Your task to perform on an android device: Clear all items from cart on newegg.com. Add "sony triple a" to the cart on newegg.com Image 0: 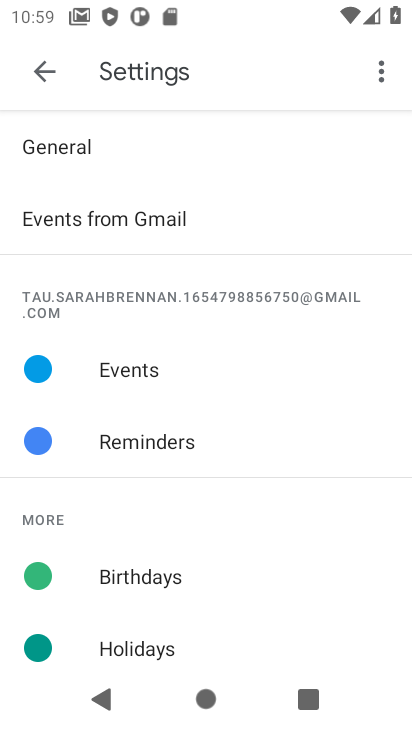
Step 0: press home button
Your task to perform on an android device: Clear all items from cart on newegg.com. Add "sony triple a" to the cart on newegg.com Image 1: 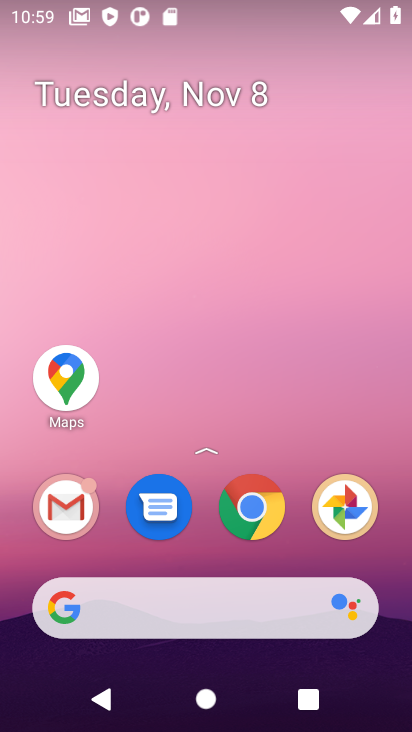
Step 1: click (259, 511)
Your task to perform on an android device: Clear all items from cart on newegg.com. Add "sony triple a" to the cart on newegg.com Image 2: 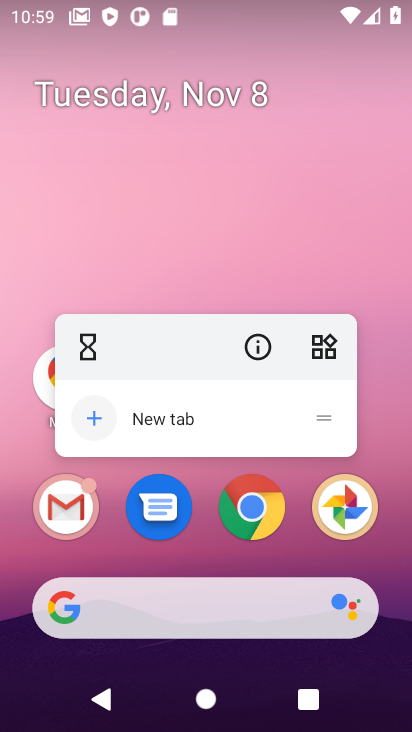
Step 2: click (259, 510)
Your task to perform on an android device: Clear all items from cart on newegg.com. Add "sony triple a" to the cart on newegg.com Image 3: 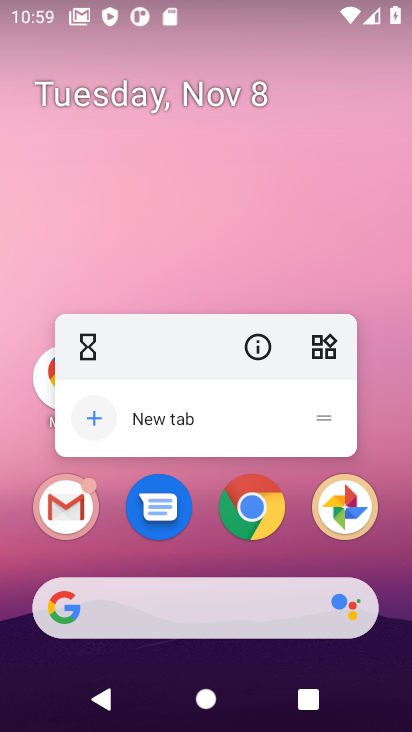
Step 3: click (259, 513)
Your task to perform on an android device: Clear all items from cart on newegg.com. Add "sony triple a" to the cart on newegg.com Image 4: 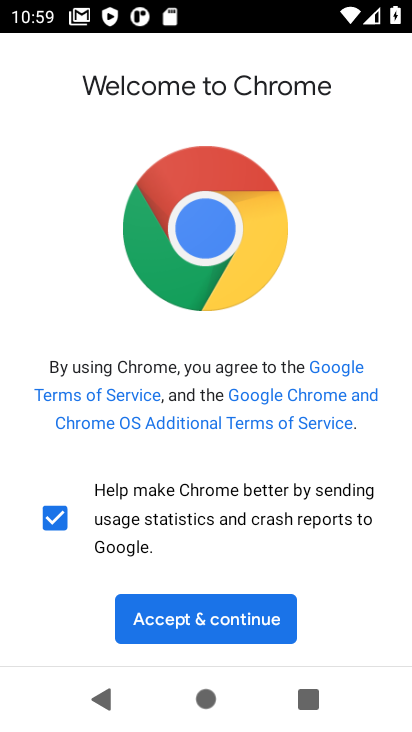
Step 4: click (186, 625)
Your task to perform on an android device: Clear all items from cart on newegg.com. Add "sony triple a" to the cart on newegg.com Image 5: 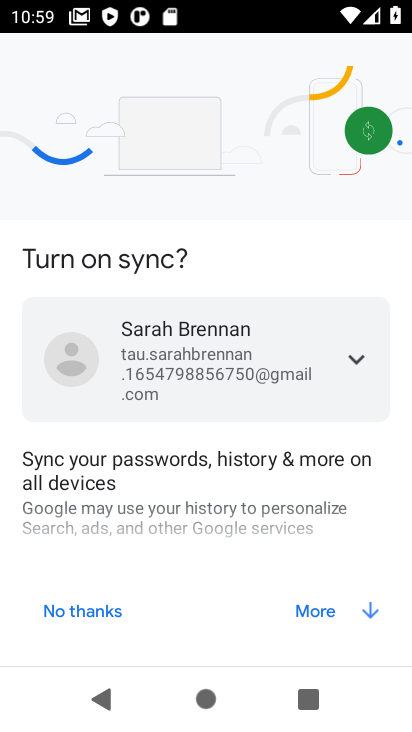
Step 5: click (323, 608)
Your task to perform on an android device: Clear all items from cart on newegg.com. Add "sony triple a" to the cart on newegg.com Image 6: 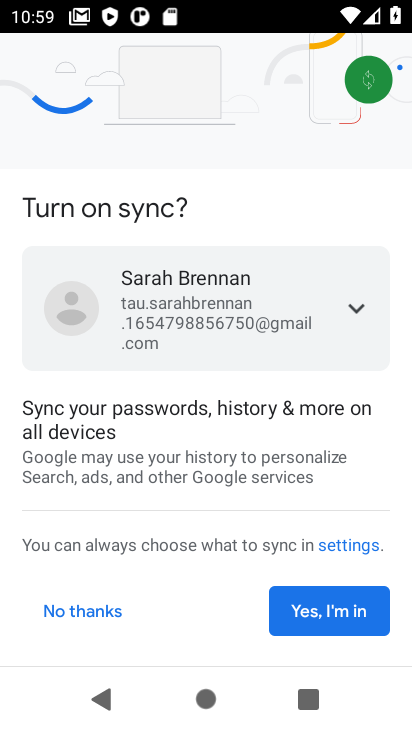
Step 6: click (323, 608)
Your task to perform on an android device: Clear all items from cart on newegg.com. Add "sony triple a" to the cart on newegg.com Image 7: 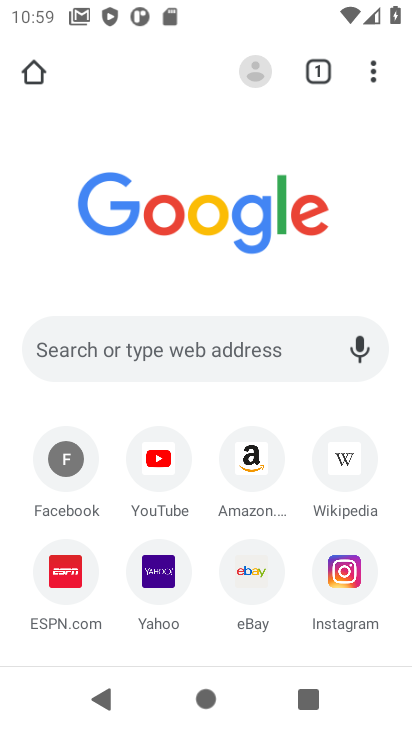
Step 7: click (149, 348)
Your task to perform on an android device: Clear all items from cart on newegg.com. Add "sony triple a" to the cart on newegg.com Image 8: 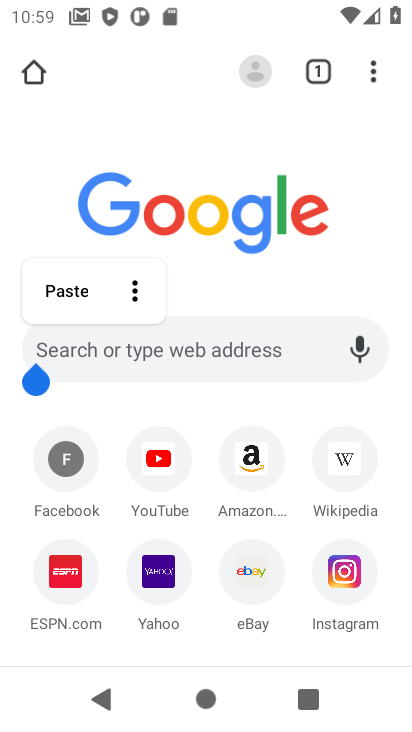
Step 8: click (149, 348)
Your task to perform on an android device: Clear all items from cart on newegg.com. Add "sony triple a" to the cart on newegg.com Image 9: 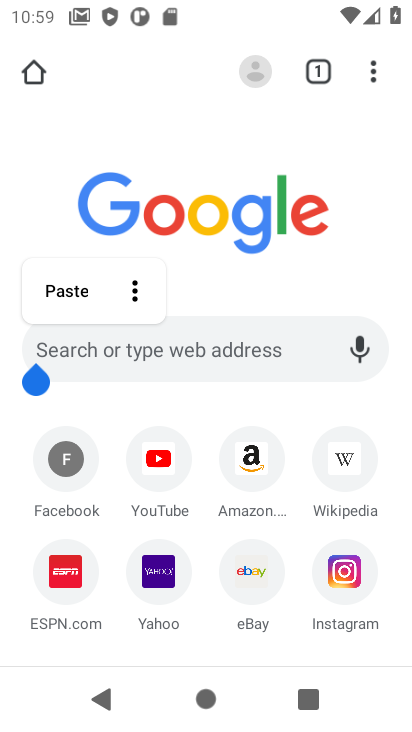
Step 9: click (149, 348)
Your task to perform on an android device: Clear all items from cart on newegg.com. Add "sony triple a" to the cart on newegg.com Image 10: 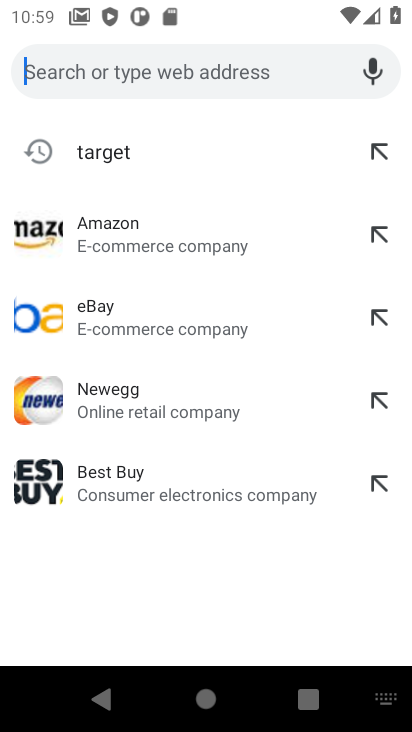
Step 10: click (111, 412)
Your task to perform on an android device: Clear all items from cart on newegg.com. Add "sony triple a" to the cart on newegg.com Image 11: 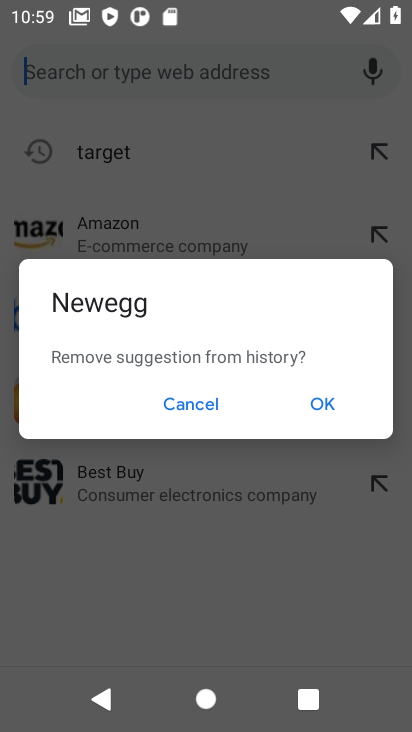
Step 11: click (190, 400)
Your task to perform on an android device: Clear all items from cart on newegg.com. Add "sony triple a" to the cart on newegg.com Image 12: 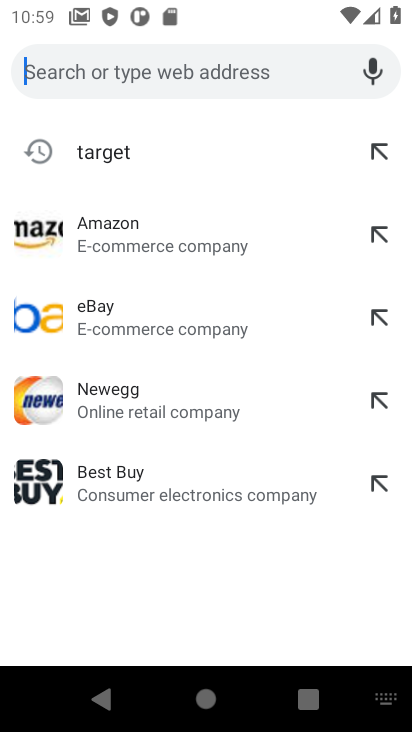
Step 12: click (97, 391)
Your task to perform on an android device: Clear all items from cart on newegg.com. Add "sony triple a" to the cart on newegg.com Image 13: 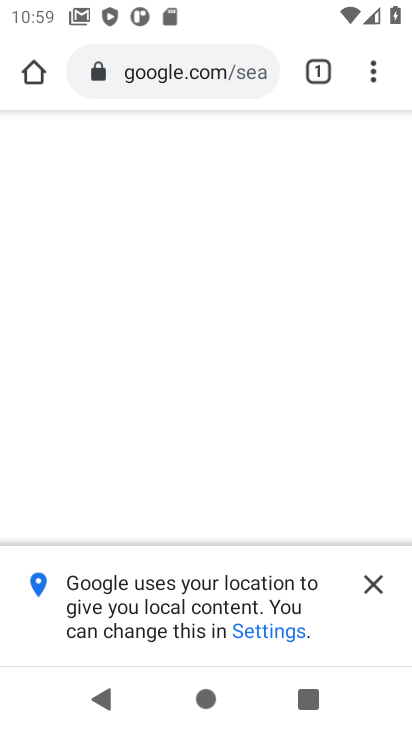
Step 13: click (377, 583)
Your task to perform on an android device: Clear all items from cart on newegg.com. Add "sony triple a" to the cart on newegg.com Image 14: 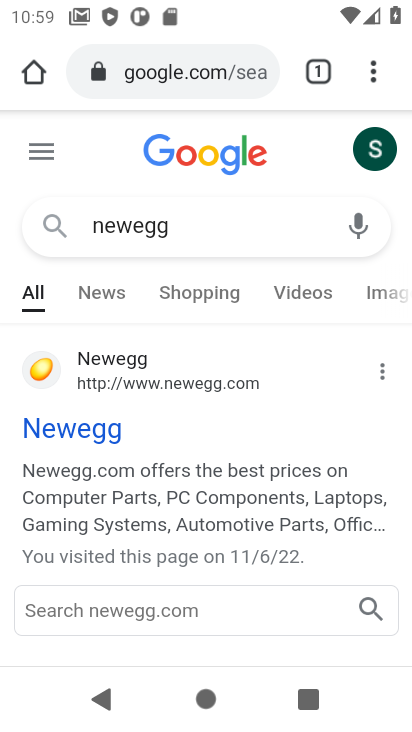
Step 14: click (89, 422)
Your task to perform on an android device: Clear all items from cart on newegg.com. Add "sony triple a" to the cart on newegg.com Image 15: 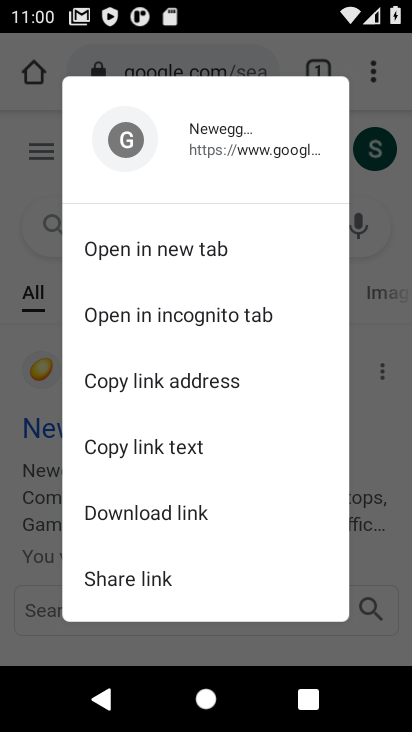
Step 15: click (41, 431)
Your task to perform on an android device: Clear all items from cart on newegg.com. Add "sony triple a" to the cart on newegg.com Image 16: 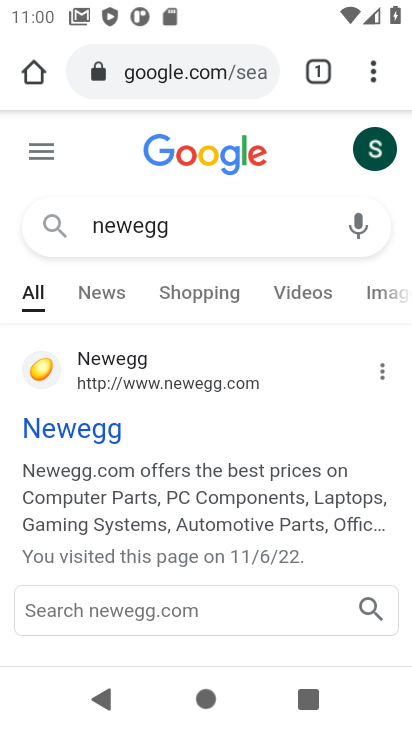
Step 16: click (67, 426)
Your task to perform on an android device: Clear all items from cart on newegg.com. Add "sony triple a" to the cart on newegg.com Image 17: 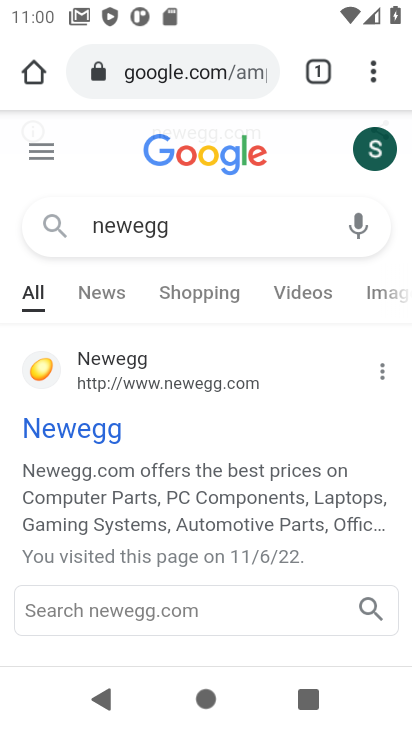
Step 17: click (104, 427)
Your task to perform on an android device: Clear all items from cart on newegg.com. Add "sony triple a" to the cart on newegg.com Image 18: 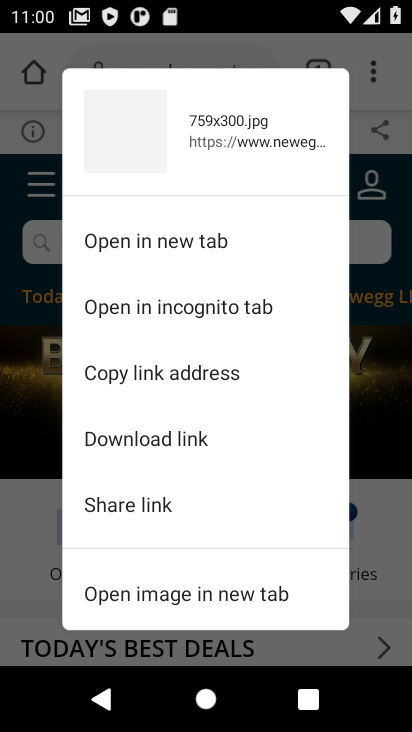
Step 18: click (366, 245)
Your task to perform on an android device: Clear all items from cart on newegg.com. Add "sony triple a" to the cart on newegg.com Image 19: 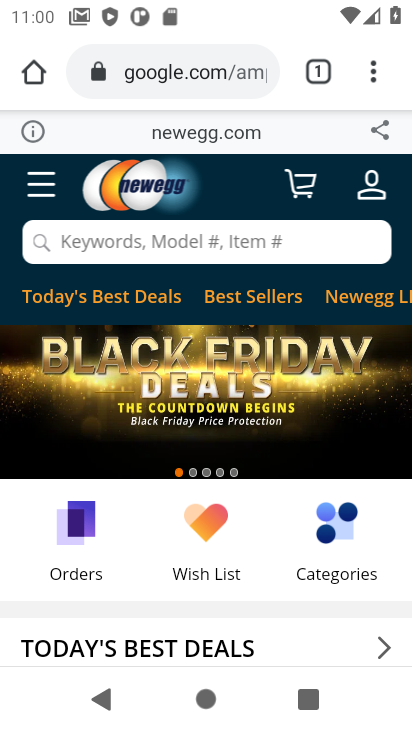
Step 19: click (129, 240)
Your task to perform on an android device: Clear all items from cart on newegg.com. Add "sony triple a" to the cart on newegg.com Image 20: 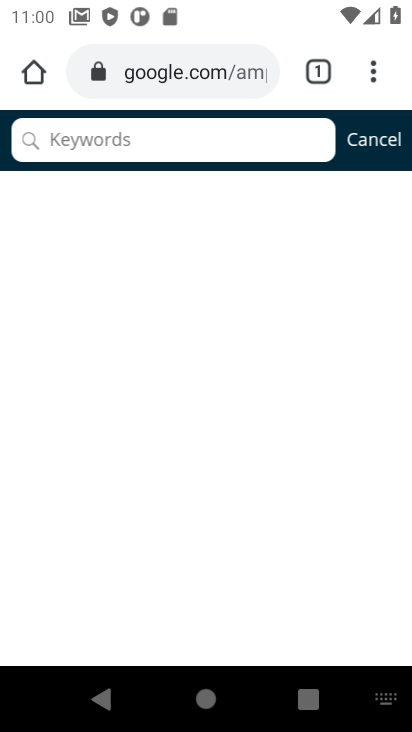
Step 20: type "sony triple a"
Your task to perform on an android device: Clear all items from cart on newegg.com. Add "sony triple a" to the cart on newegg.com Image 21: 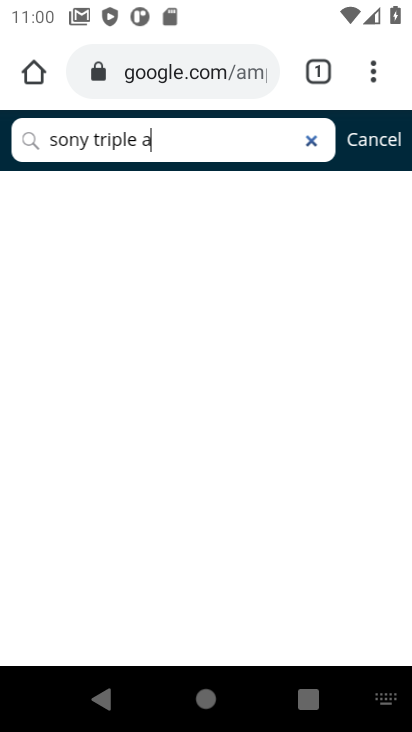
Step 21: press enter
Your task to perform on an android device: Clear all items from cart on newegg.com. Add "sony triple a" to the cart on newegg.com Image 22: 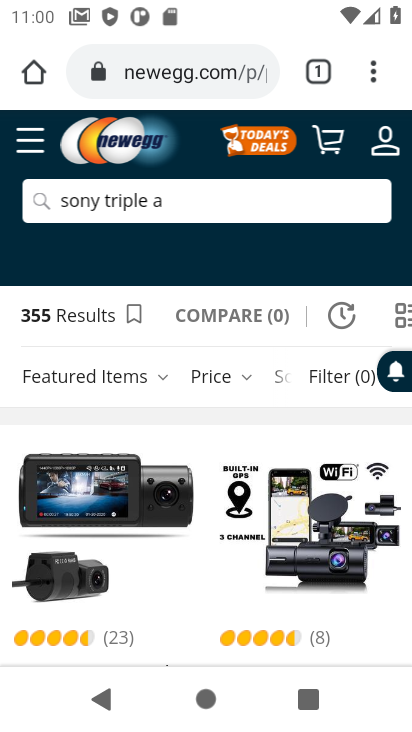
Step 22: drag from (202, 575) to (320, 282)
Your task to perform on an android device: Clear all items from cart on newegg.com. Add "sony triple a" to the cart on newegg.com Image 23: 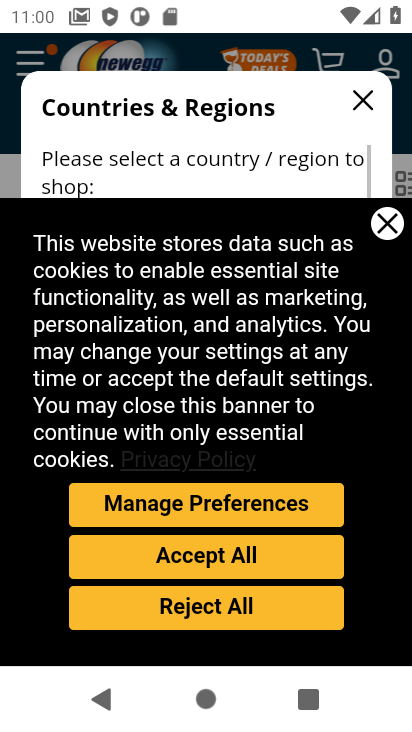
Step 23: click (390, 222)
Your task to perform on an android device: Clear all items from cart on newegg.com. Add "sony triple a" to the cart on newegg.com Image 24: 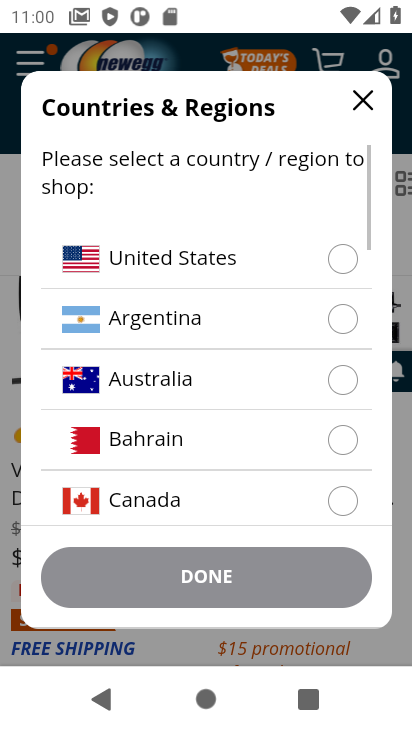
Step 24: click (363, 103)
Your task to perform on an android device: Clear all items from cart on newegg.com. Add "sony triple a" to the cart on newegg.com Image 25: 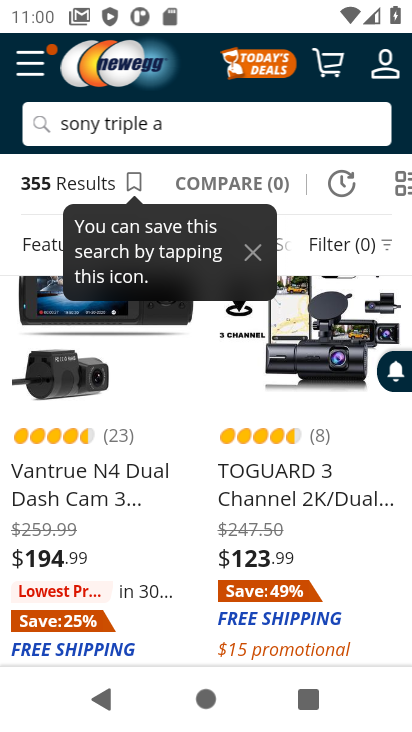
Step 25: task complete